Your task to perform on an android device: Open Google Chrome Image 0: 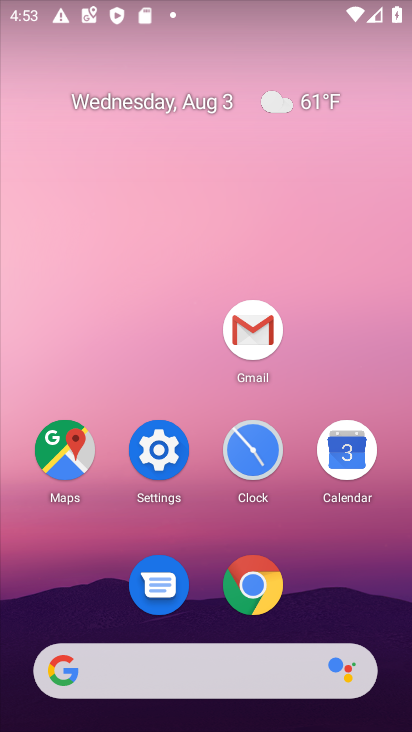
Step 0: click (239, 589)
Your task to perform on an android device: Open Google Chrome Image 1: 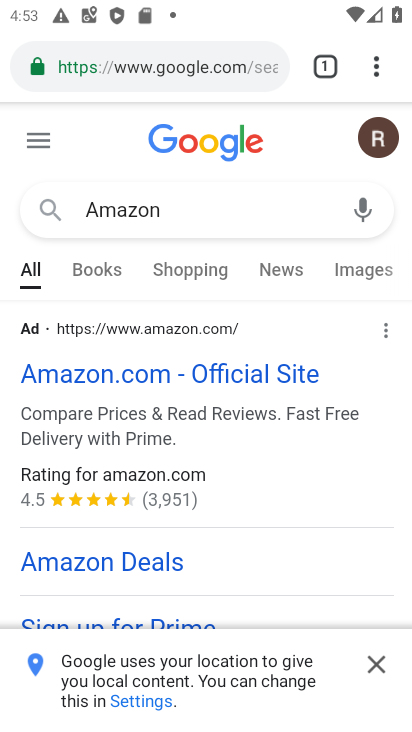
Step 1: task complete